Your task to perform on an android device: Go to calendar. Show me events next week Image 0: 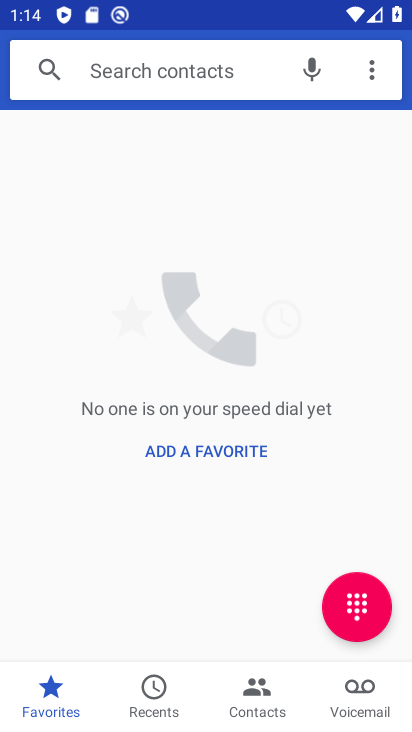
Step 0: press home button
Your task to perform on an android device: Go to calendar. Show me events next week Image 1: 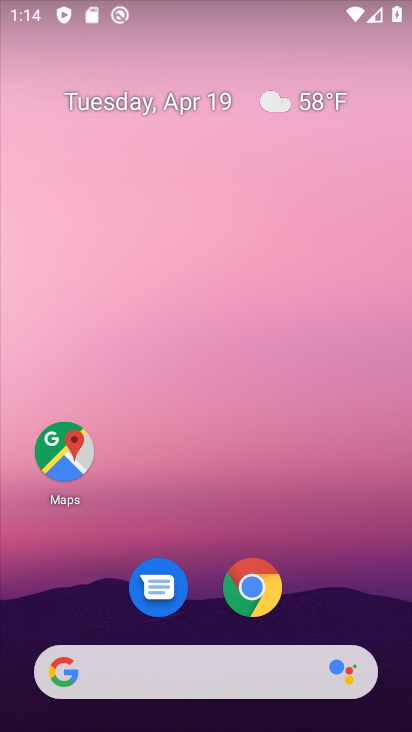
Step 1: drag from (335, 582) to (300, 96)
Your task to perform on an android device: Go to calendar. Show me events next week Image 2: 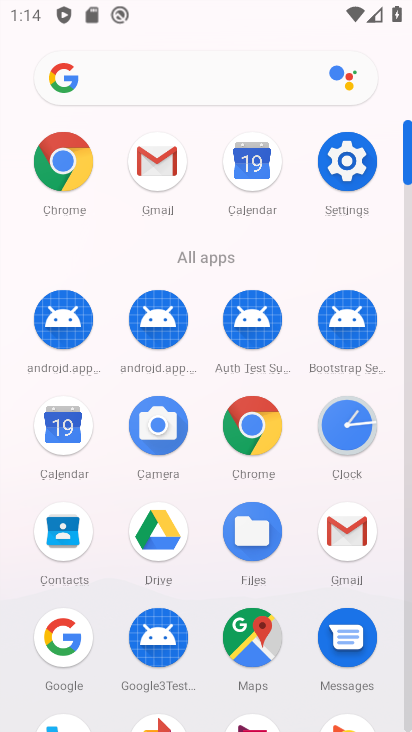
Step 2: click (256, 177)
Your task to perform on an android device: Go to calendar. Show me events next week Image 3: 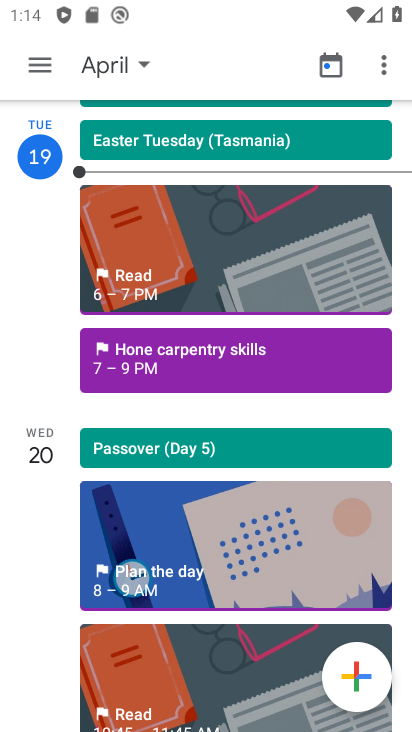
Step 3: click (47, 62)
Your task to perform on an android device: Go to calendar. Show me events next week Image 4: 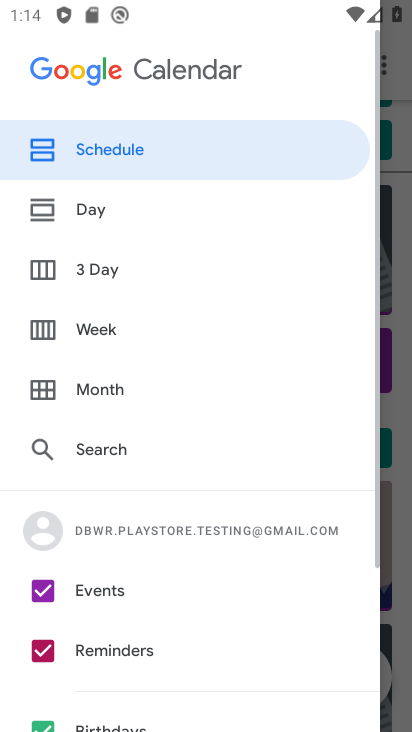
Step 4: click (76, 333)
Your task to perform on an android device: Go to calendar. Show me events next week Image 5: 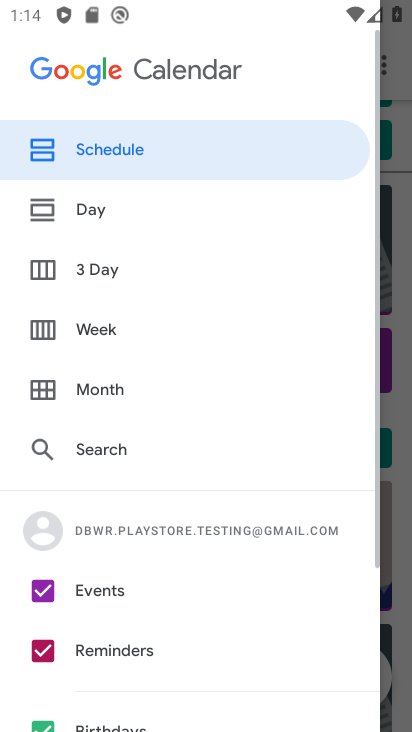
Step 5: click (39, 326)
Your task to perform on an android device: Go to calendar. Show me events next week Image 6: 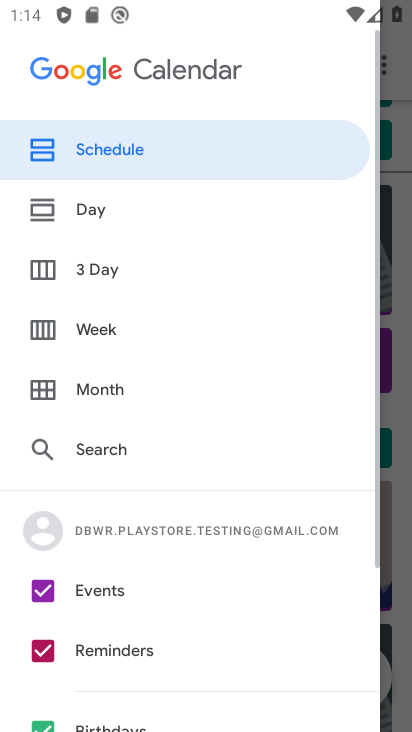
Step 6: click (107, 328)
Your task to perform on an android device: Go to calendar. Show me events next week Image 7: 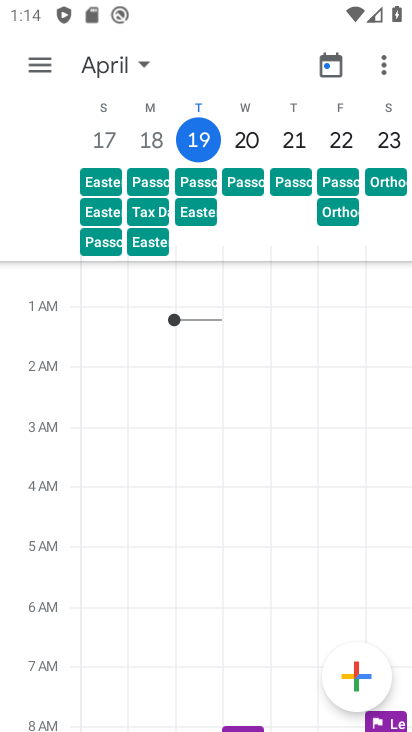
Step 7: task complete